Your task to perform on an android device: turn off priority inbox in the gmail app Image 0: 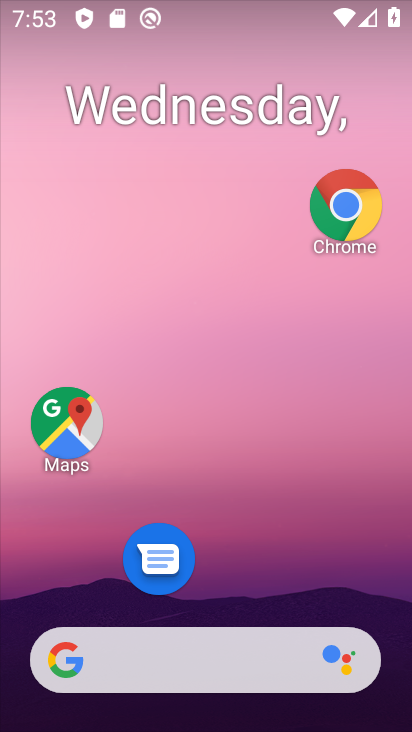
Step 0: drag from (220, 585) to (288, 21)
Your task to perform on an android device: turn off priority inbox in the gmail app Image 1: 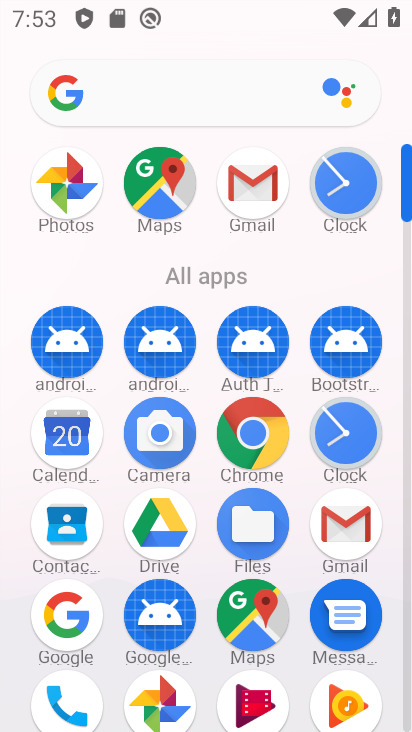
Step 1: click (343, 526)
Your task to perform on an android device: turn off priority inbox in the gmail app Image 2: 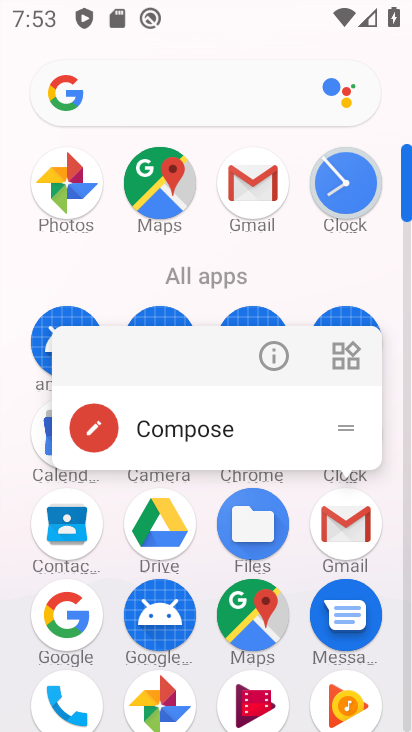
Step 2: click (264, 350)
Your task to perform on an android device: turn off priority inbox in the gmail app Image 3: 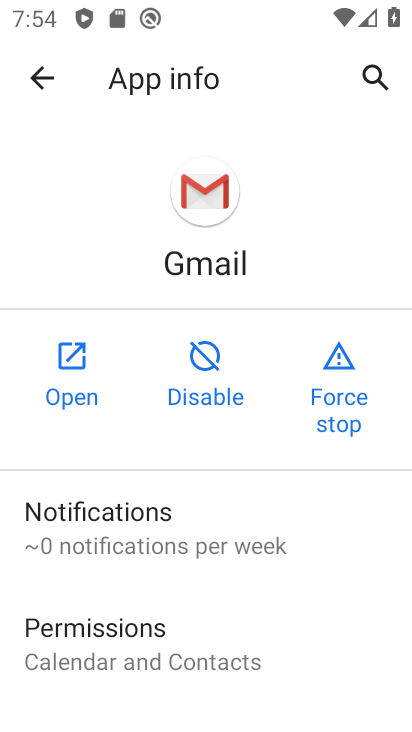
Step 3: click (67, 385)
Your task to perform on an android device: turn off priority inbox in the gmail app Image 4: 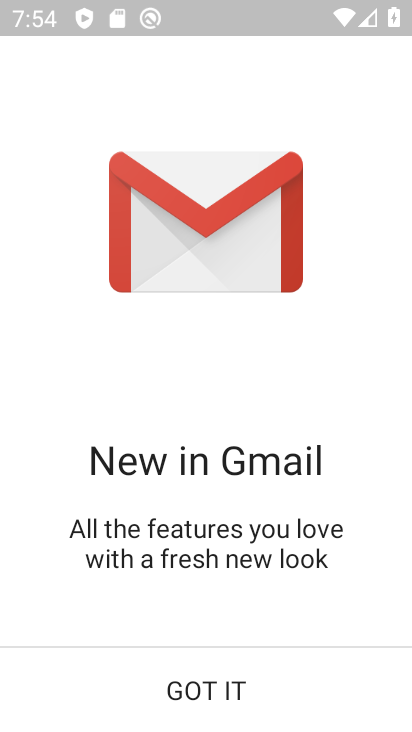
Step 4: click (152, 697)
Your task to perform on an android device: turn off priority inbox in the gmail app Image 5: 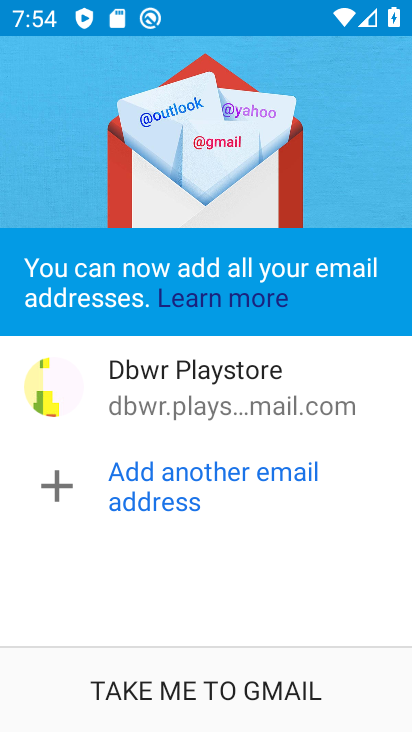
Step 5: click (208, 678)
Your task to perform on an android device: turn off priority inbox in the gmail app Image 6: 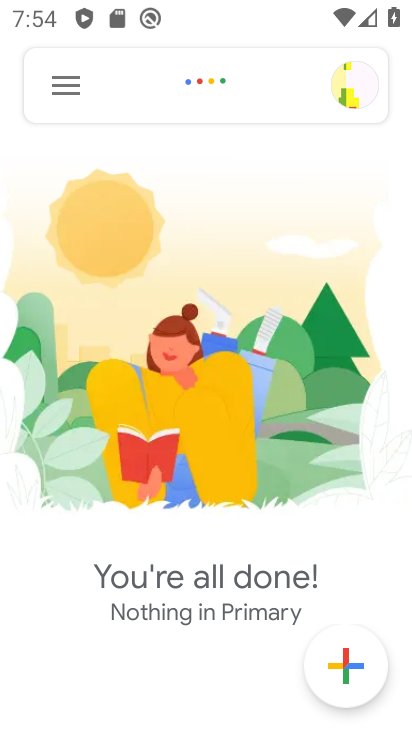
Step 6: click (60, 89)
Your task to perform on an android device: turn off priority inbox in the gmail app Image 7: 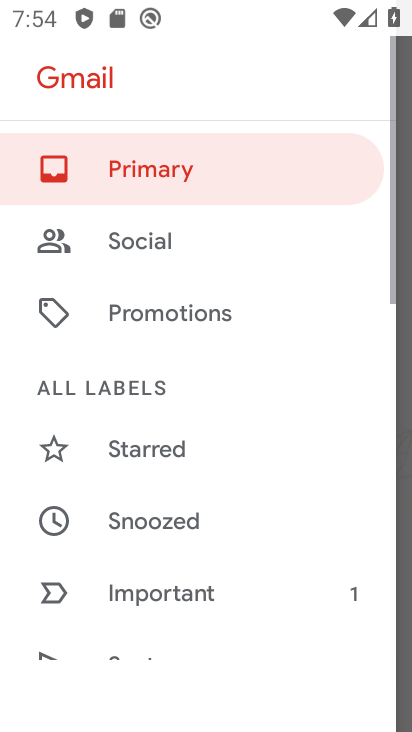
Step 7: drag from (213, 550) to (256, 123)
Your task to perform on an android device: turn off priority inbox in the gmail app Image 8: 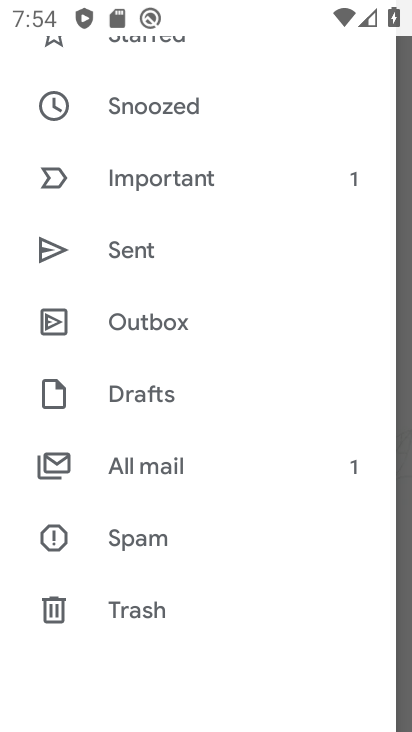
Step 8: drag from (168, 573) to (316, 50)
Your task to perform on an android device: turn off priority inbox in the gmail app Image 9: 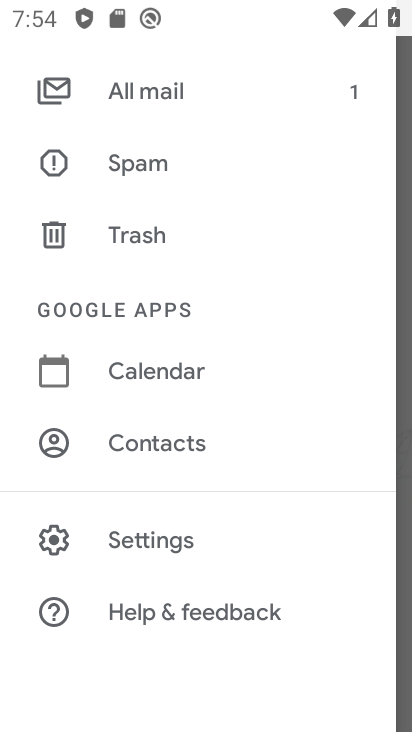
Step 9: click (152, 530)
Your task to perform on an android device: turn off priority inbox in the gmail app Image 10: 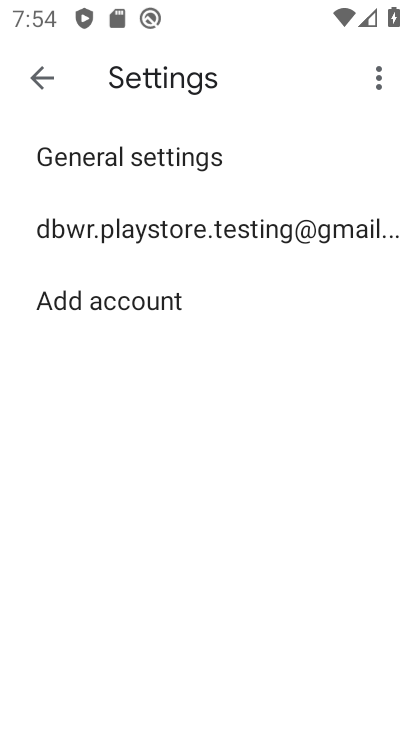
Step 10: click (208, 234)
Your task to perform on an android device: turn off priority inbox in the gmail app Image 11: 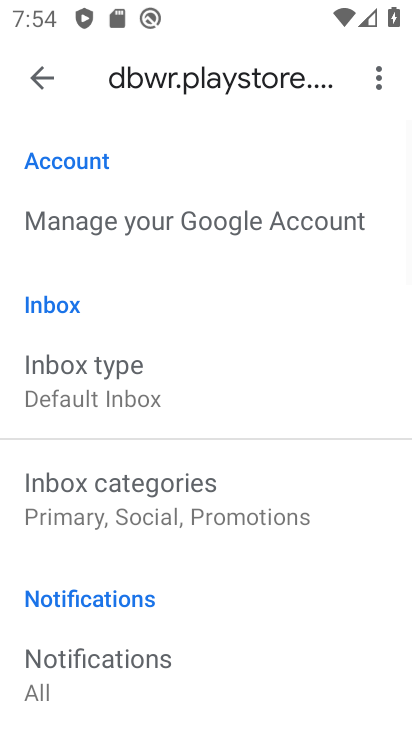
Step 11: click (136, 385)
Your task to perform on an android device: turn off priority inbox in the gmail app Image 12: 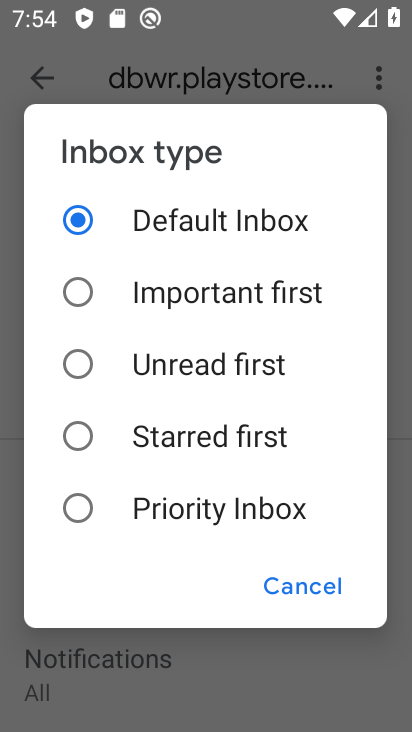
Step 12: click (123, 488)
Your task to perform on an android device: turn off priority inbox in the gmail app Image 13: 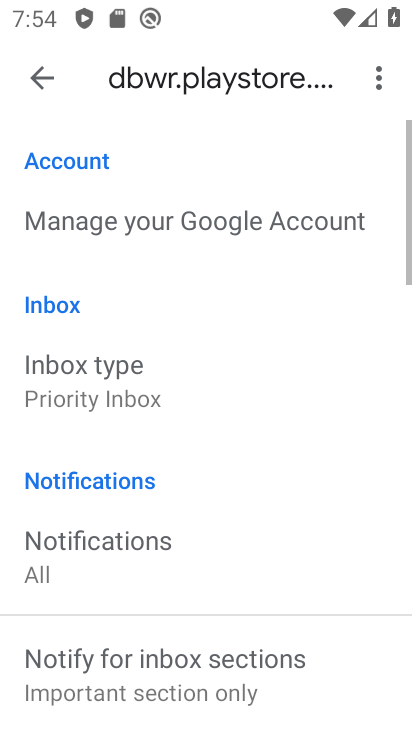
Step 13: click (193, 378)
Your task to perform on an android device: turn off priority inbox in the gmail app Image 14: 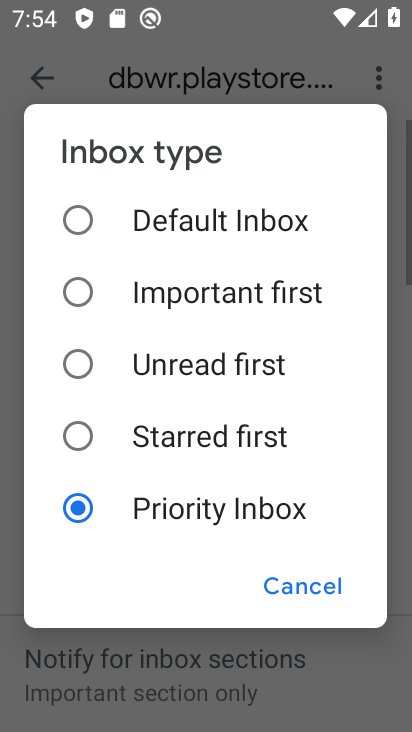
Step 14: click (173, 304)
Your task to perform on an android device: turn off priority inbox in the gmail app Image 15: 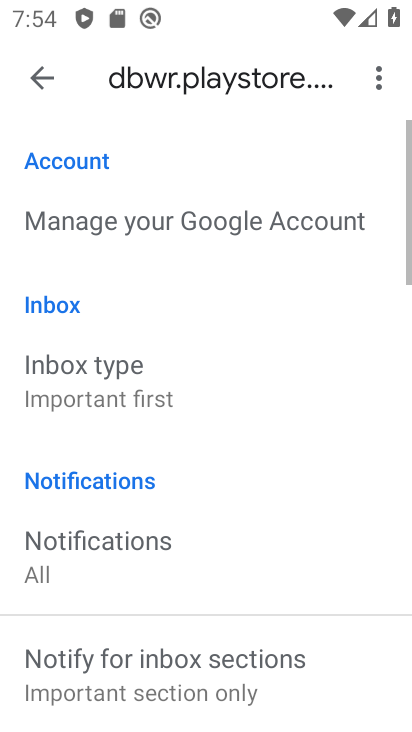
Step 15: task complete